Your task to perform on an android device: When is my next appointment? Image 0: 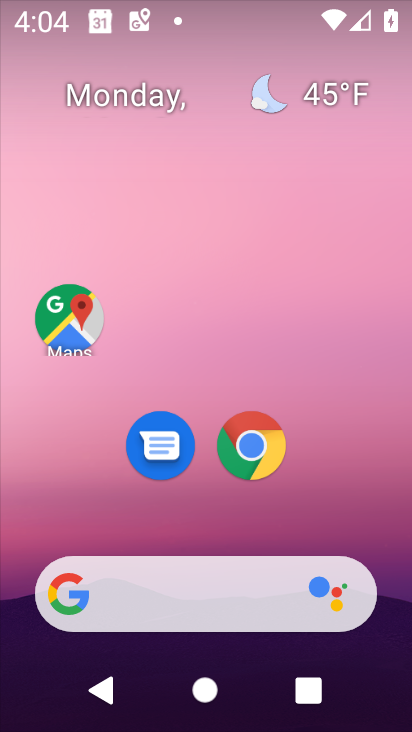
Step 0: drag from (311, 518) to (308, 109)
Your task to perform on an android device: When is my next appointment? Image 1: 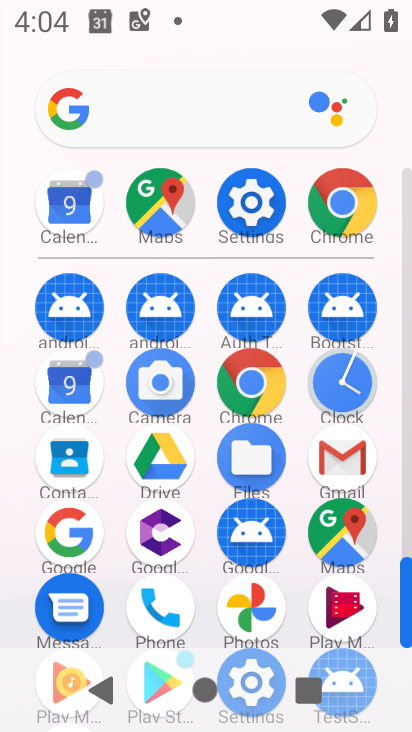
Step 1: click (60, 403)
Your task to perform on an android device: When is my next appointment? Image 2: 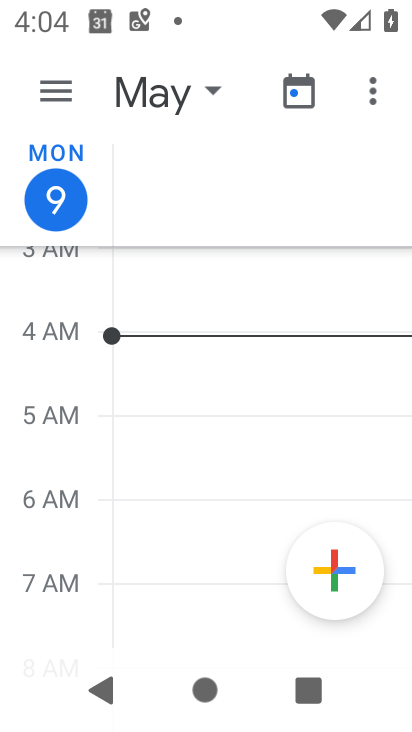
Step 2: click (165, 100)
Your task to perform on an android device: When is my next appointment? Image 3: 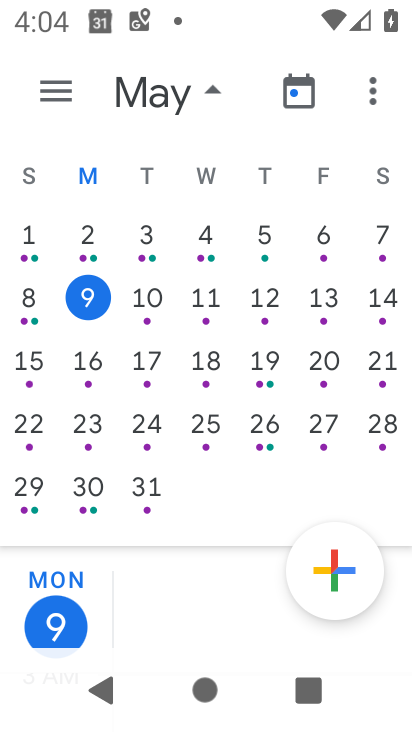
Step 3: click (82, 299)
Your task to perform on an android device: When is my next appointment? Image 4: 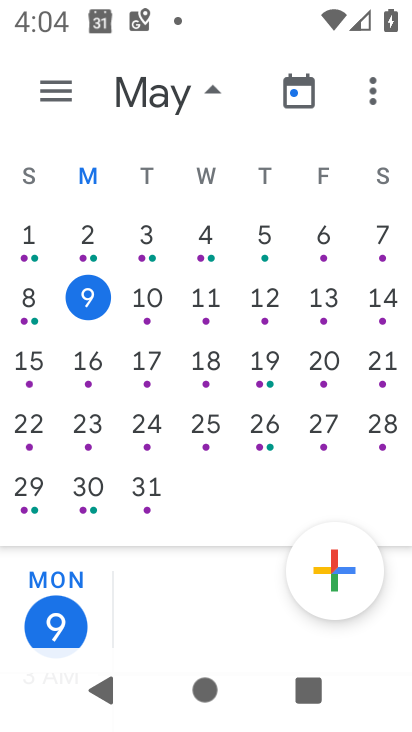
Step 4: click (89, 308)
Your task to perform on an android device: When is my next appointment? Image 5: 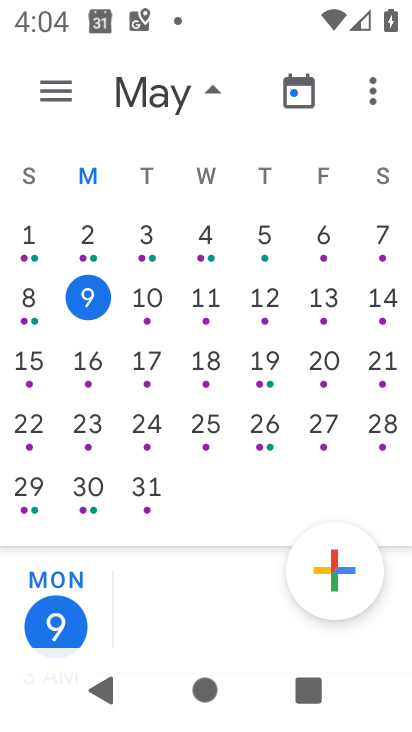
Step 5: click (89, 308)
Your task to perform on an android device: When is my next appointment? Image 6: 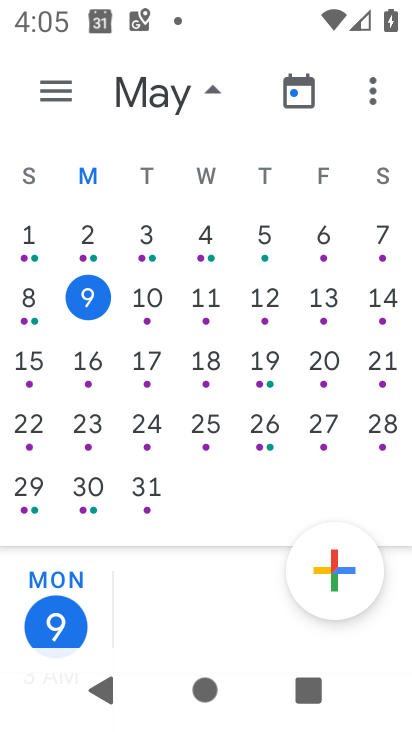
Step 6: click (73, 83)
Your task to perform on an android device: When is my next appointment? Image 7: 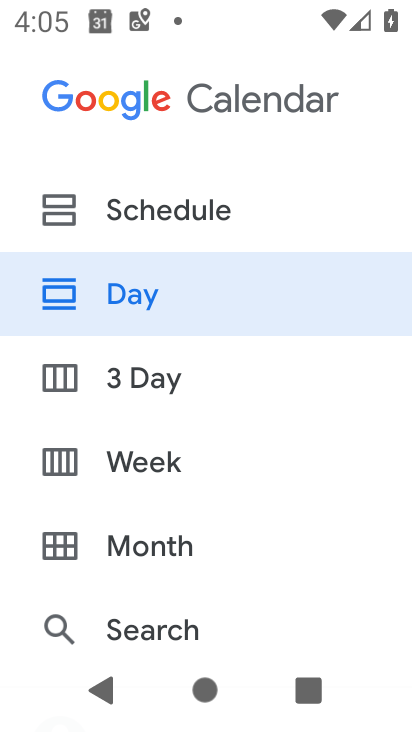
Step 7: click (179, 192)
Your task to perform on an android device: When is my next appointment? Image 8: 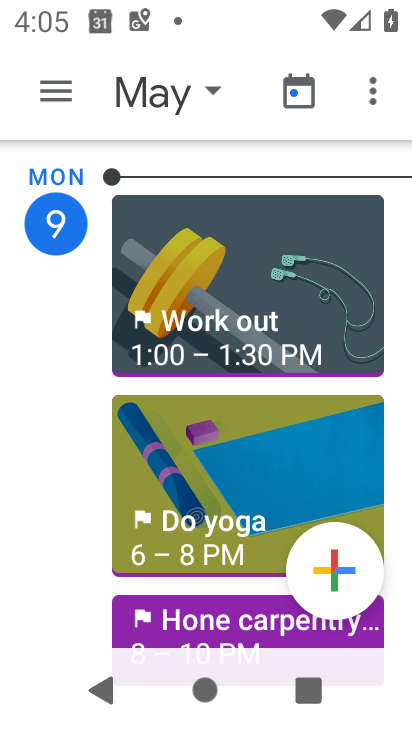
Step 8: task complete